Your task to perform on an android device: toggle javascript in the chrome app Image 0: 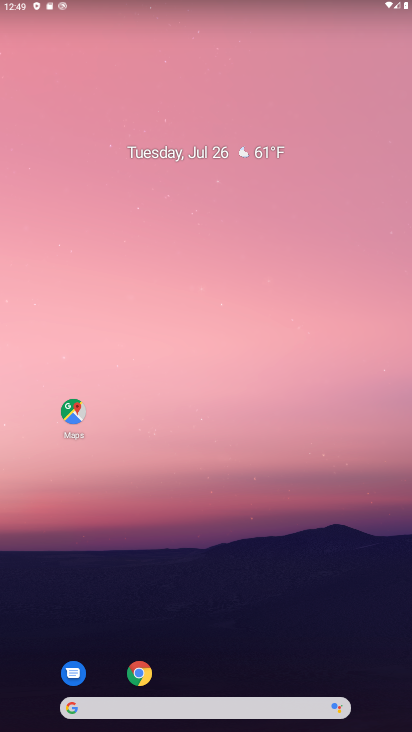
Step 0: drag from (246, 581) to (251, 424)
Your task to perform on an android device: toggle javascript in the chrome app Image 1: 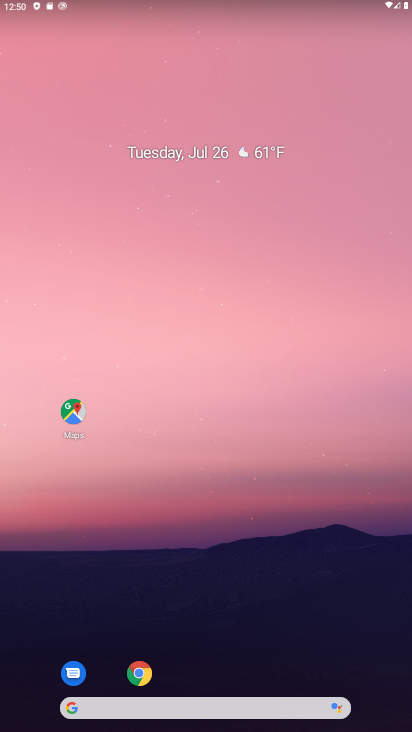
Step 1: drag from (164, 655) to (222, 150)
Your task to perform on an android device: toggle javascript in the chrome app Image 2: 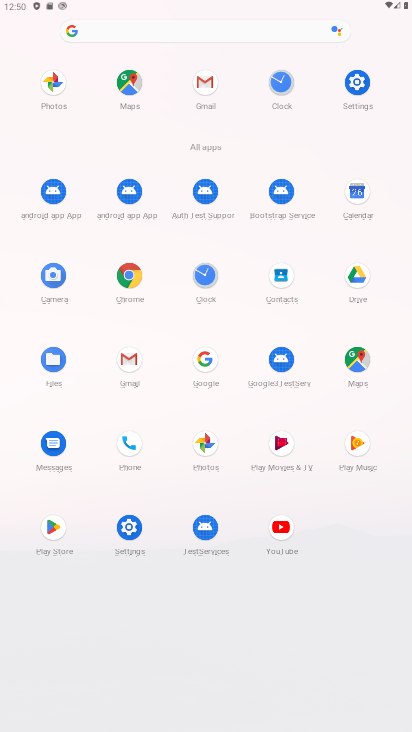
Step 2: click (130, 271)
Your task to perform on an android device: toggle javascript in the chrome app Image 3: 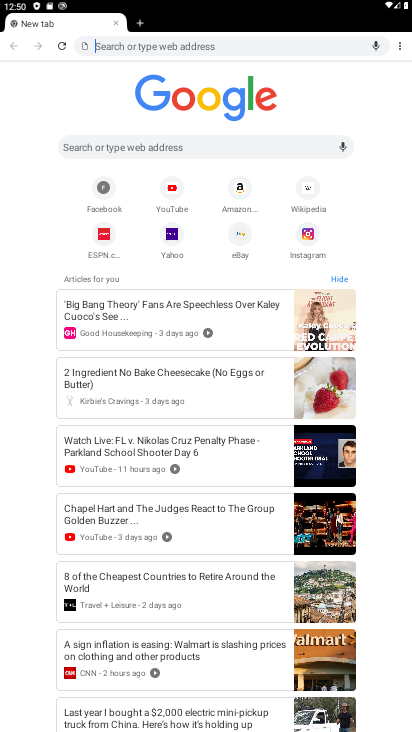
Step 3: drag from (404, 47) to (301, 214)
Your task to perform on an android device: toggle javascript in the chrome app Image 4: 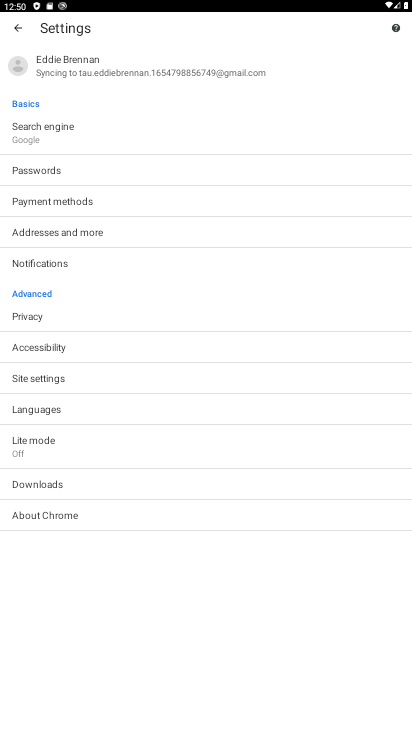
Step 4: click (47, 376)
Your task to perform on an android device: toggle javascript in the chrome app Image 5: 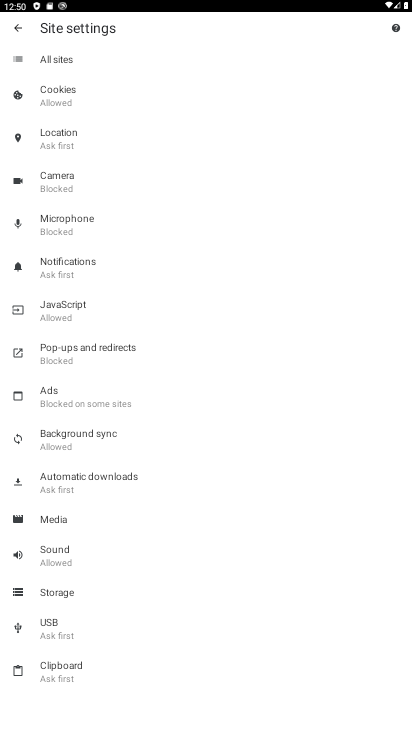
Step 5: click (71, 311)
Your task to perform on an android device: toggle javascript in the chrome app Image 6: 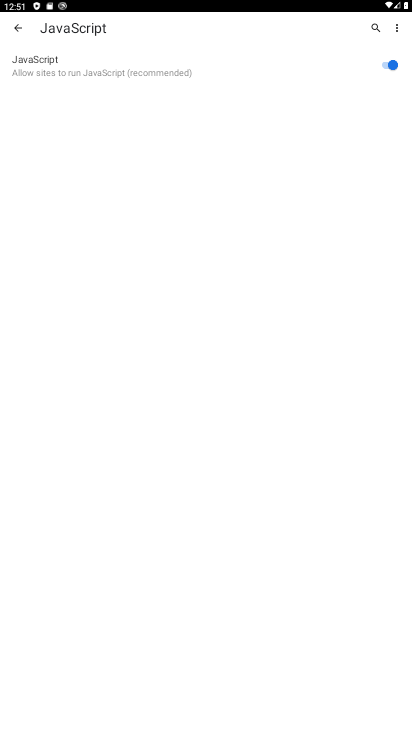
Step 6: click (381, 61)
Your task to perform on an android device: toggle javascript in the chrome app Image 7: 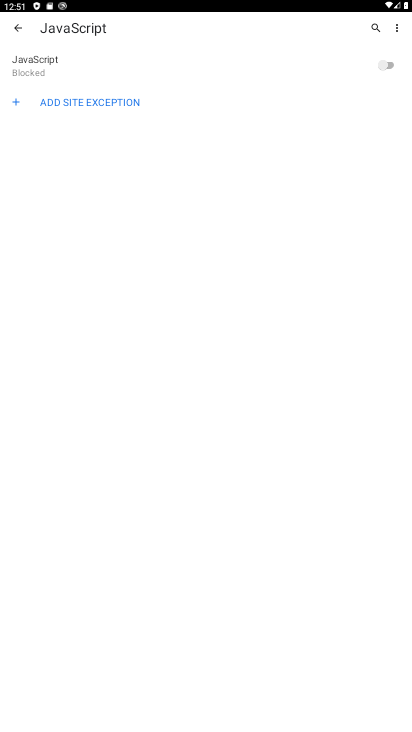
Step 7: task complete